Your task to perform on an android device: toggle airplane mode Image 0: 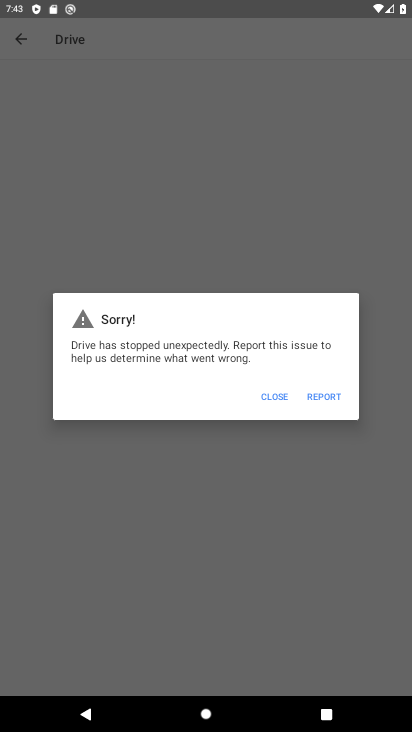
Step 0: press home button
Your task to perform on an android device: toggle airplane mode Image 1: 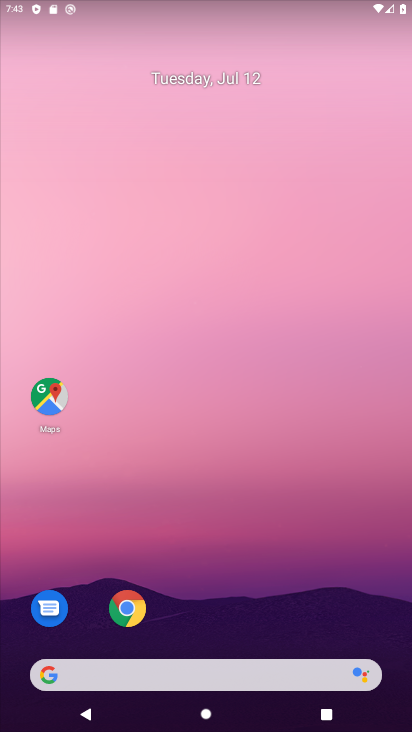
Step 1: drag from (252, 620) to (334, 61)
Your task to perform on an android device: toggle airplane mode Image 2: 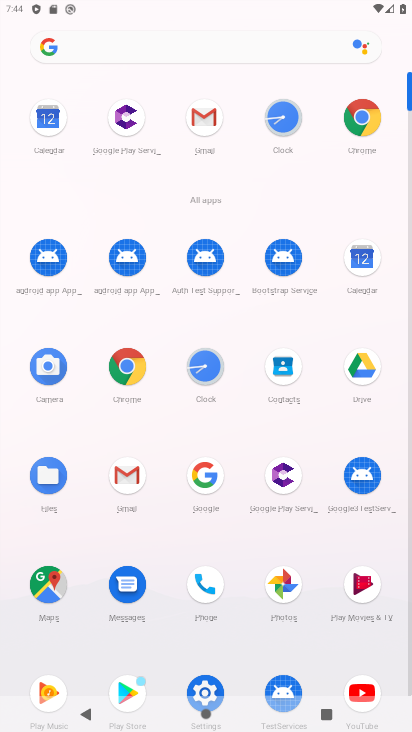
Step 2: click (208, 674)
Your task to perform on an android device: toggle airplane mode Image 3: 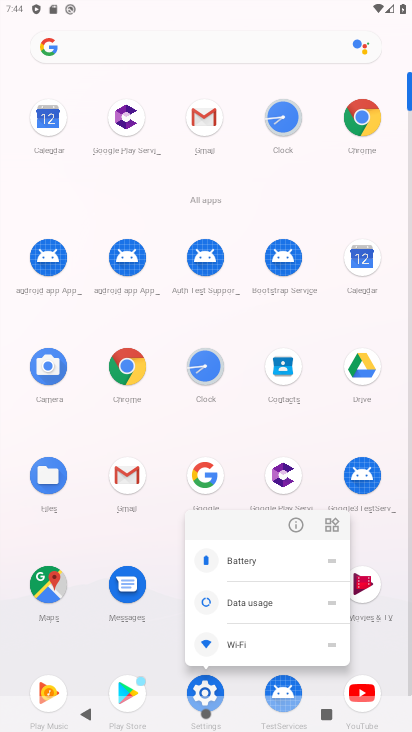
Step 3: click (201, 684)
Your task to perform on an android device: toggle airplane mode Image 4: 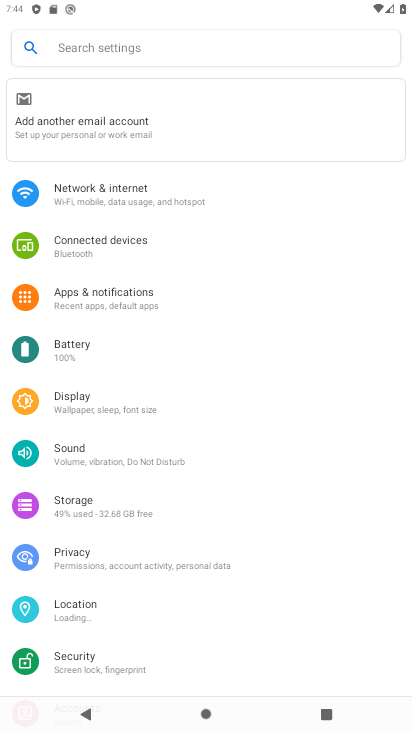
Step 4: click (66, 184)
Your task to perform on an android device: toggle airplane mode Image 5: 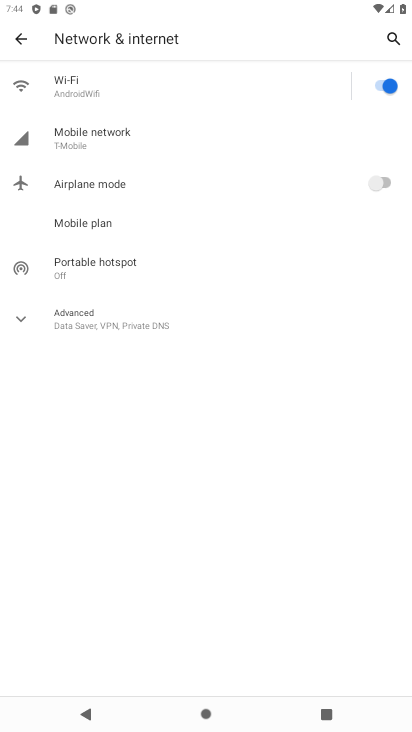
Step 5: click (395, 186)
Your task to perform on an android device: toggle airplane mode Image 6: 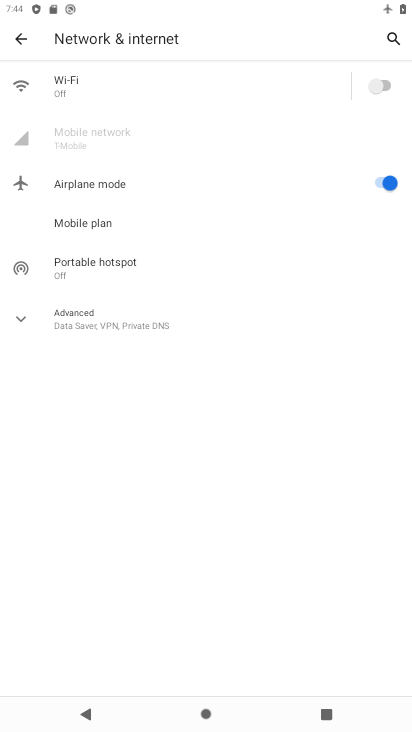
Step 6: task complete